Your task to perform on an android device: toggle priority inbox in the gmail app Image 0: 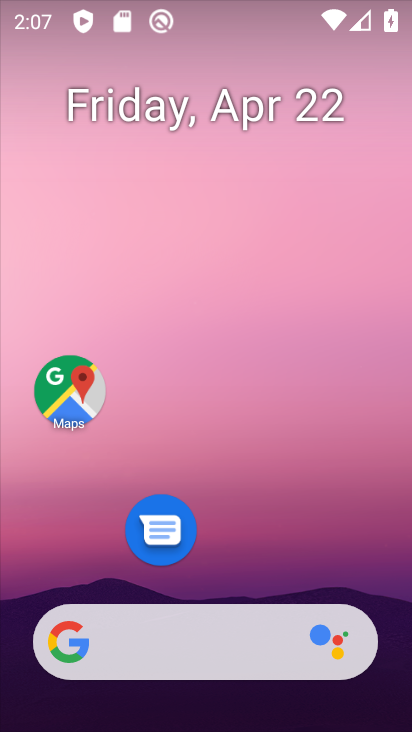
Step 0: drag from (283, 504) to (257, 3)
Your task to perform on an android device: toggle priority inbox in the gmail app Image 1: 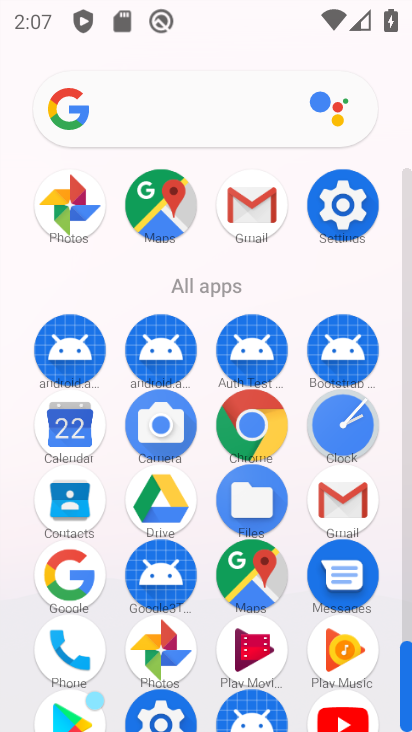
Step 1: click (246, 216)
Your task to perform on an android device: toggle priority inbox in the gmail app Image 2: 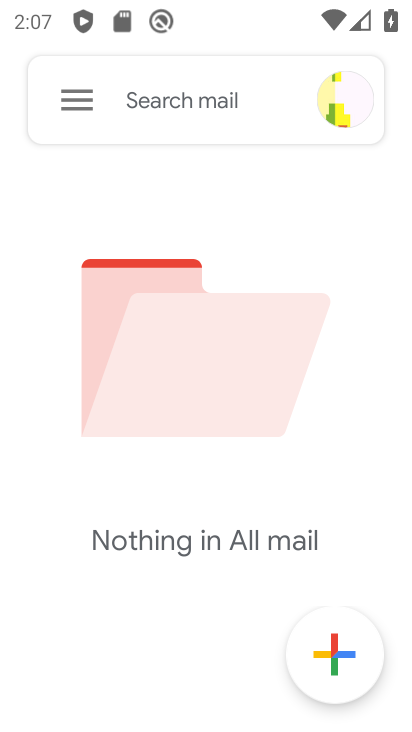
Step 2: click (73, 107)
Your task to perform on an android device: toggle priority inbox in the gmail app Image 3: 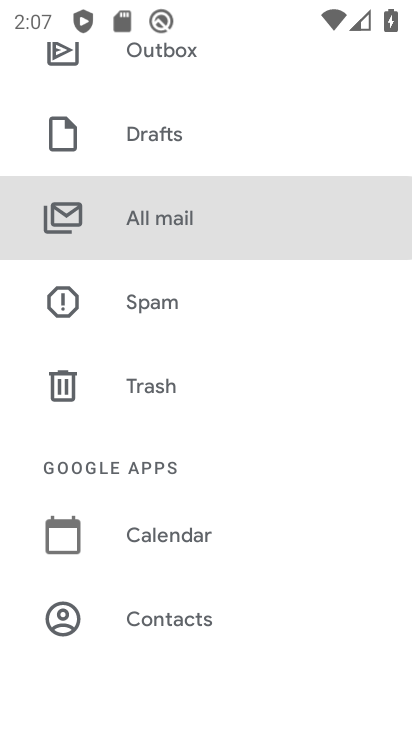
Step 3: drag from (265, 586) to (240, 105)
Your task to perform on an android device: toggle priority inbox in the gmail app Image 4: 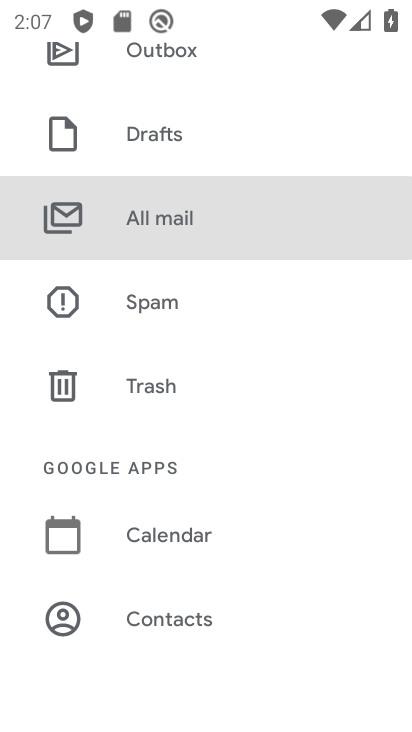
Step 4: drag from (192, 551) to (179, 19)
Your task to perform on an android device: toggle priority inbox in the gmail app Image 5: 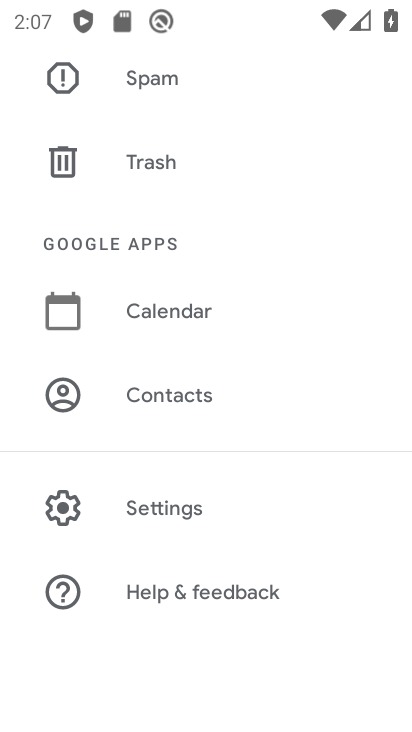
Step 5: click (181, 507)
Your task to perform on an android device: toggle priority inbox in the gmail app Image 6: 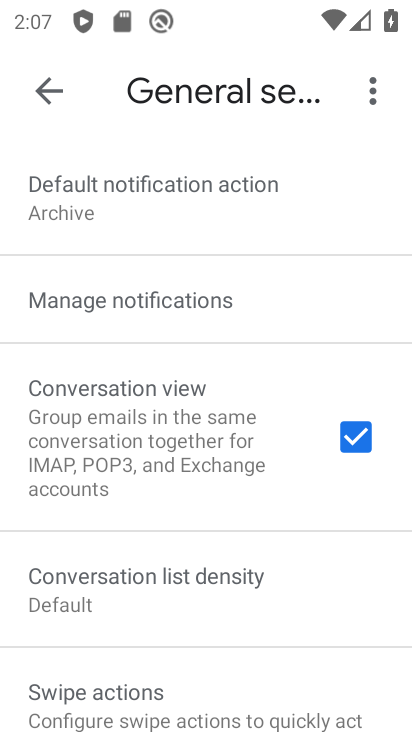
Step 6: click (48, 96)
Your task to perform on an android device: toggle priority inbox in the gmail app Image 7: 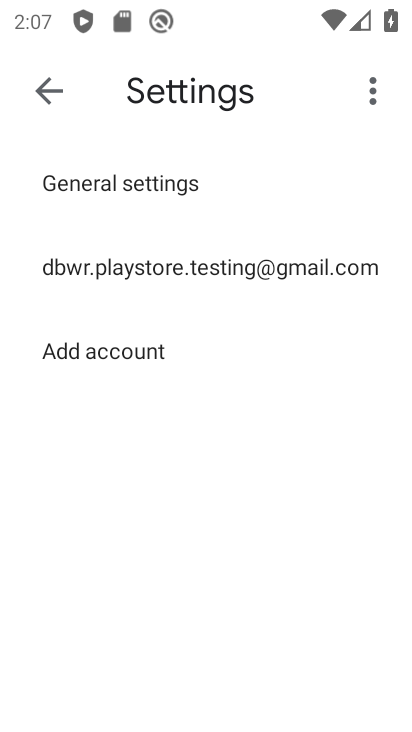
Step 7: click (182, 271)
Your task to perform on an android device: toggle priority inbox in the gmail app Image 8: 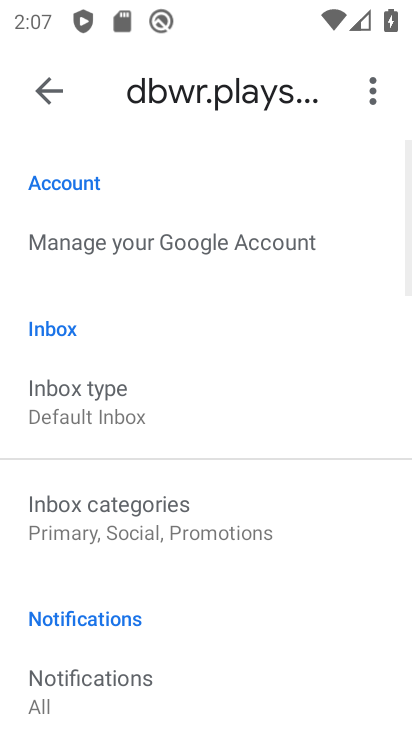
Step 8: click (72, 405)
Your task to perform on an android device: toggle priority inbox in the gmail app Image 9: 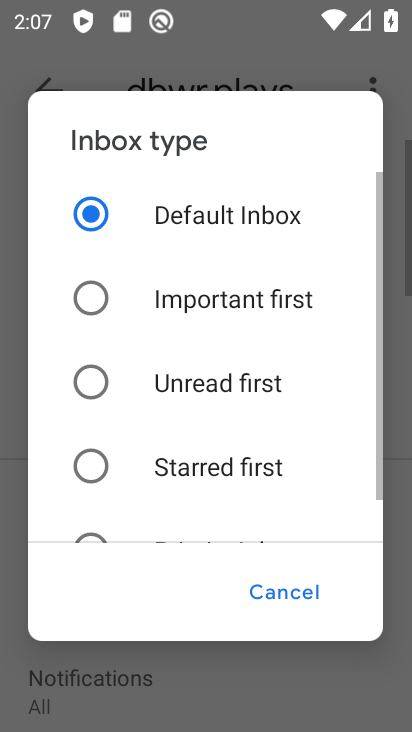
Step 9: drag from (175, 480) to (163, 52)
Your task to perform on an android device: toggle priority inbox in the gmail app Image 10: 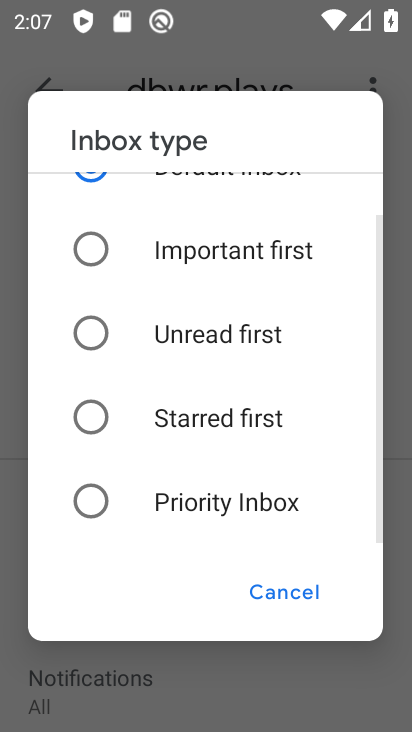
Step 10: click (87, 508)
Your task to perform on an android device: toggle priority inbox in the gmail app Image 11: 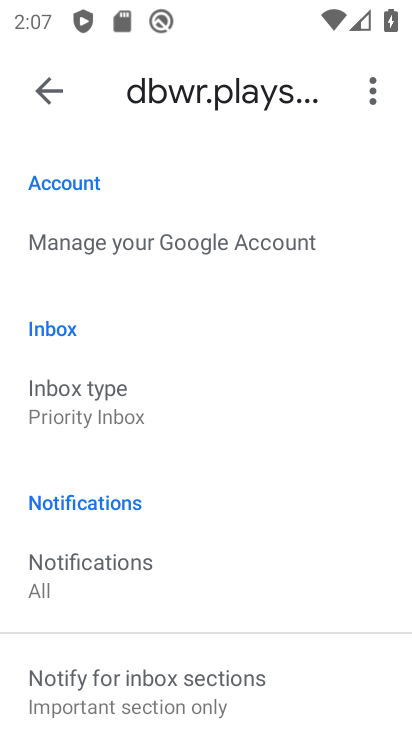
Step 11: task complete